Your task to perform on an android device: set the stopwatch Image 0: 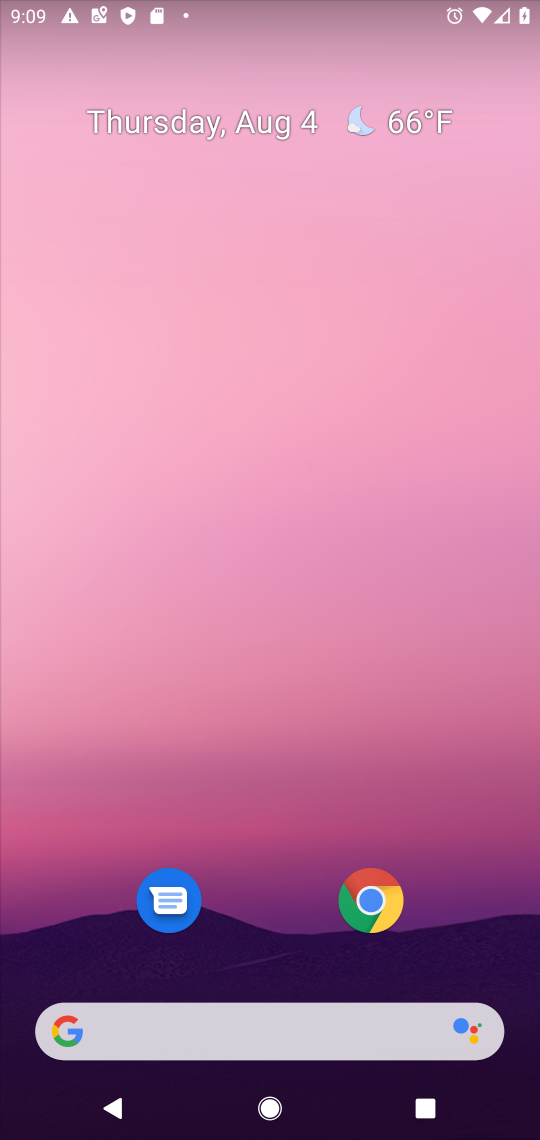
Step 0: drag from (250, 1039) to (422, 0)
Your task to perform on an android device: set the stopwatch Image 1: 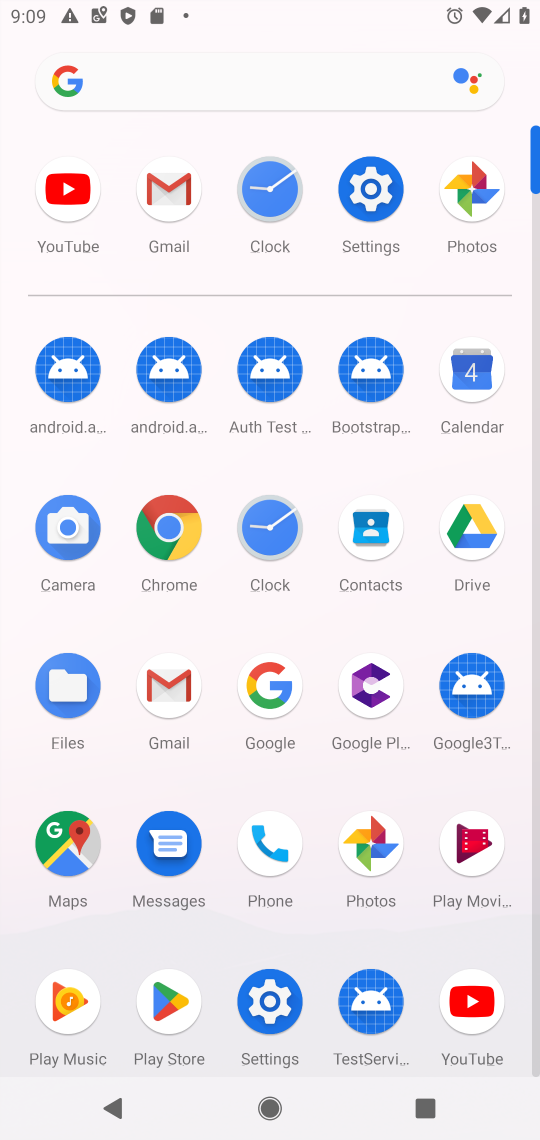
Step 1: click (274, 188)
Your task to perform on an android device: set the stopwatch Image 2: 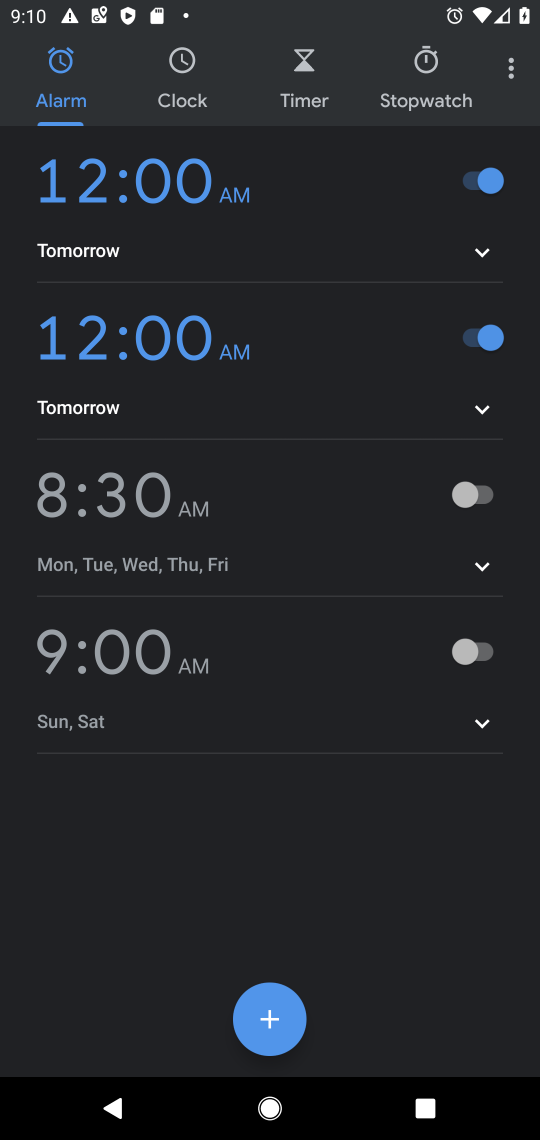
Step 2: click (425, 69)
Your task to perform on an android device: set the stopwatch Image 3: 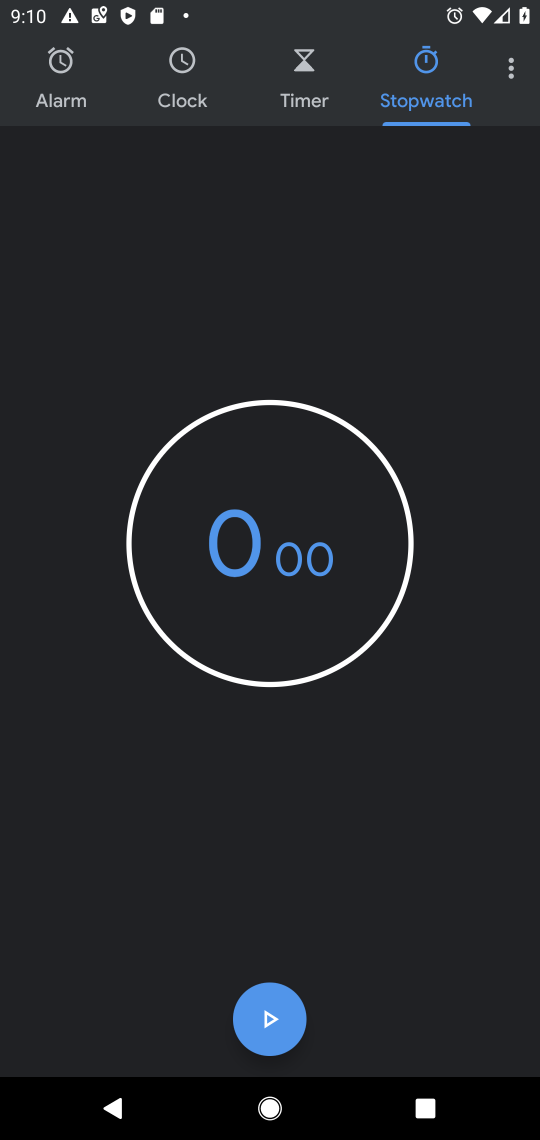
Step 3: click (274, 1016)
Your task to perform on an android device: set the stopwatch Image 4: 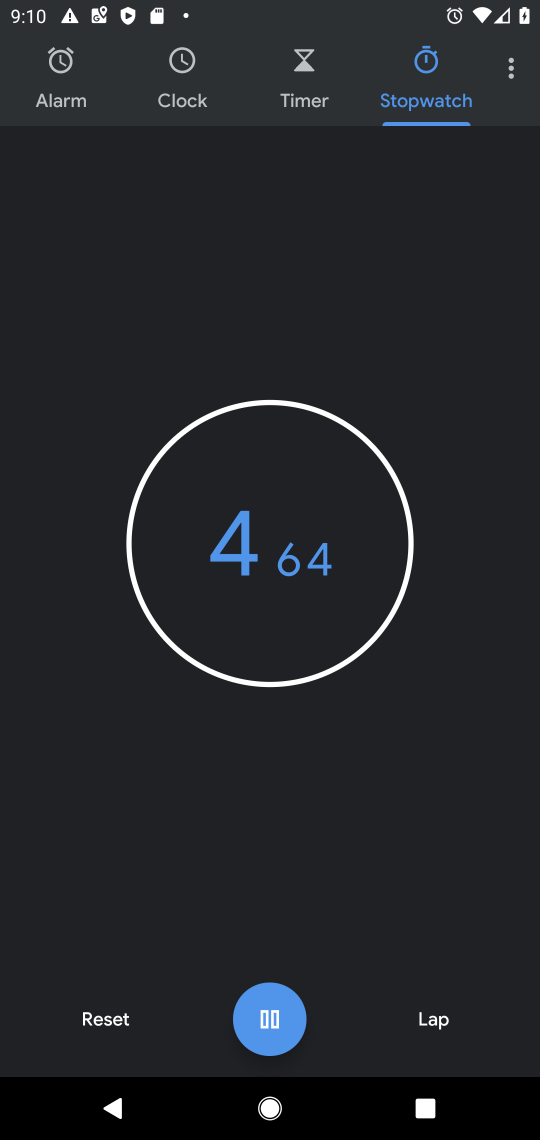
Step 4: click (274, 1016)
Your task to perform on an android device: set the stopwatch Image 5: 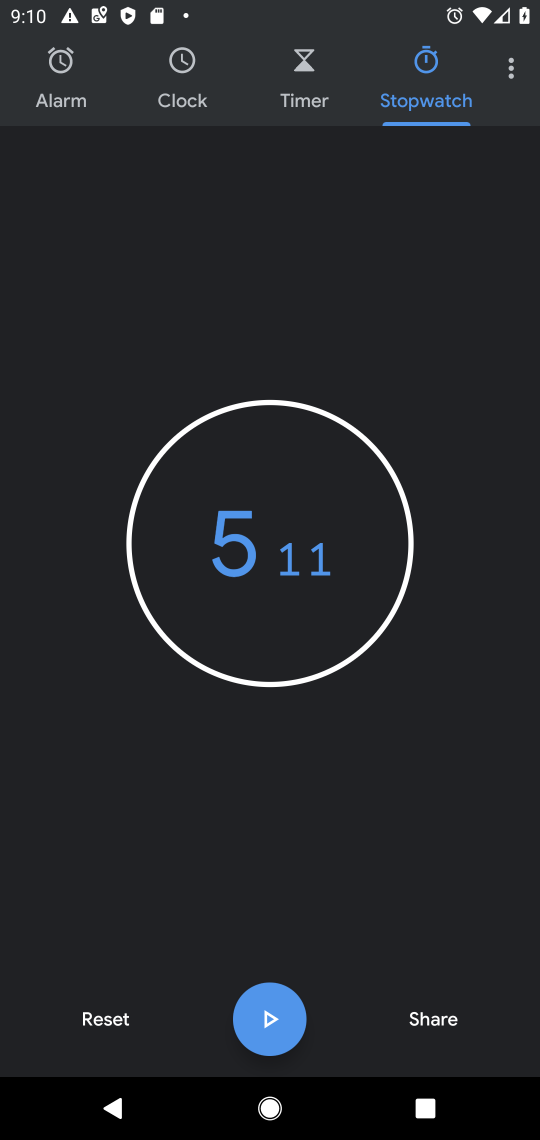
Step 5: task complete